Your task to perform on an android device: Set the phone to "Do not disturb". Image 0: 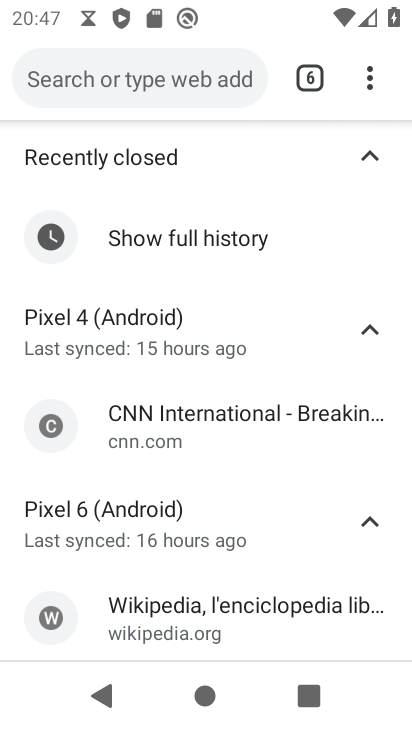
Step 0: press home button
Your task to perform on an android device: Set the phone to "Do not disturb". Image 1: 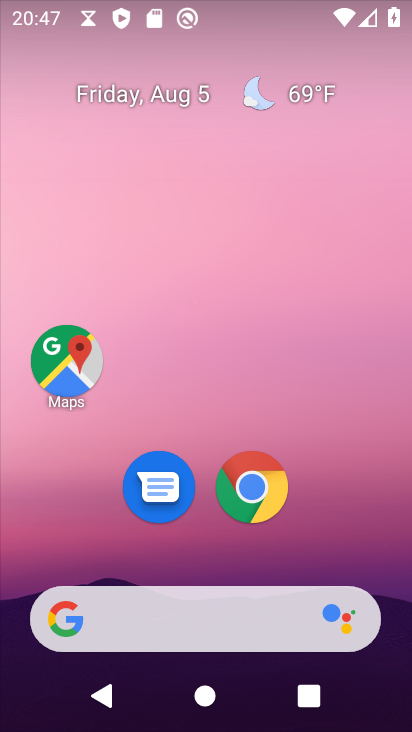
Step 1: drag from (189, 616) to (334, 147)
Your task to perform on an android device: Set the phone to "Do not disturb". Image 2: 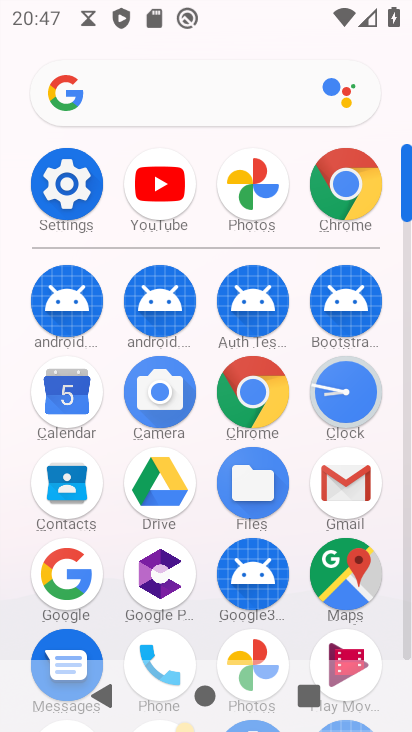
Step 2: click (67, 198)
Your task to perform on an android device: Set the phone to "Do not disturb". Image 3: 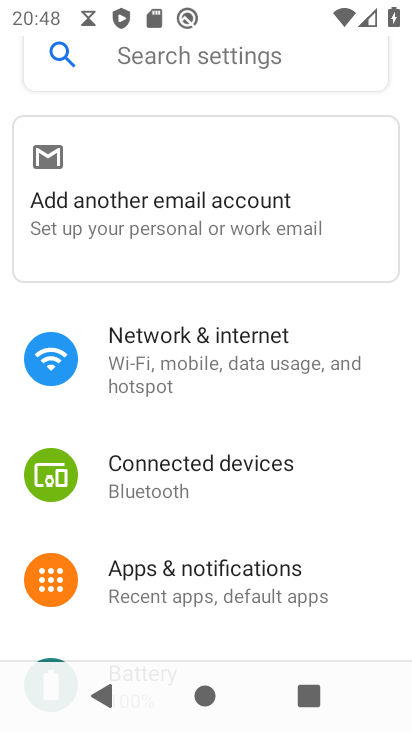
Step 3: drag from (281, 617) to (399, 157)
Your task to perform on an android device: Set the phone to "Do not disturb". Image 4: 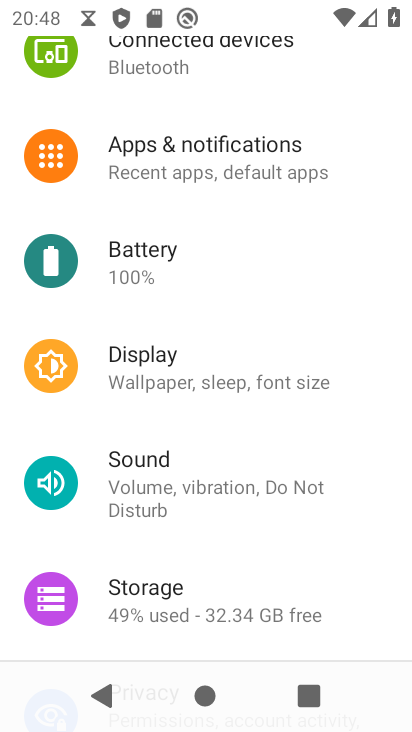
Step 4: click (161, 469)
Your task to perform on an android device: Set the phone to "Do not disturb". Image 5: 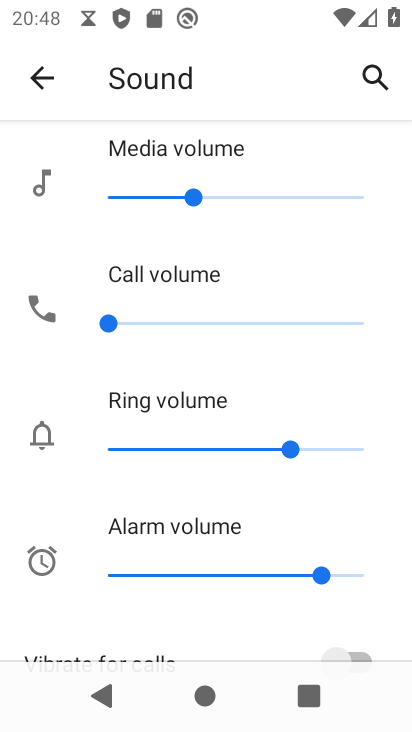
Step 5: drag from (191, 628) to (316, 172)
Your task to perform on an android device: Set the phone to "Do not disturb". Image 6: 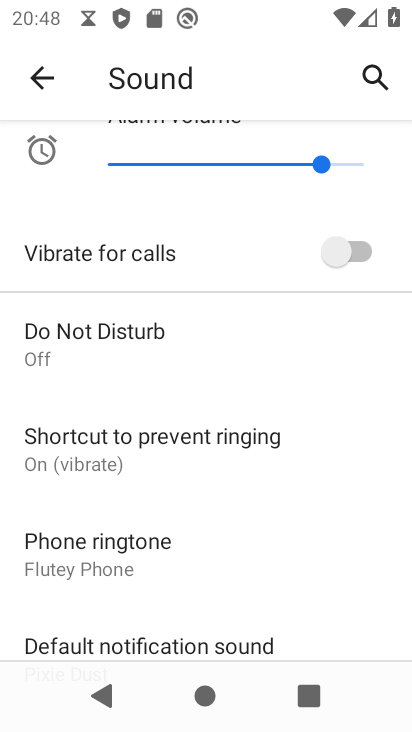
Step 6: click (74, 334)
Your task to perform on an android device: Set the phone to "Do not disturb". Image 7: 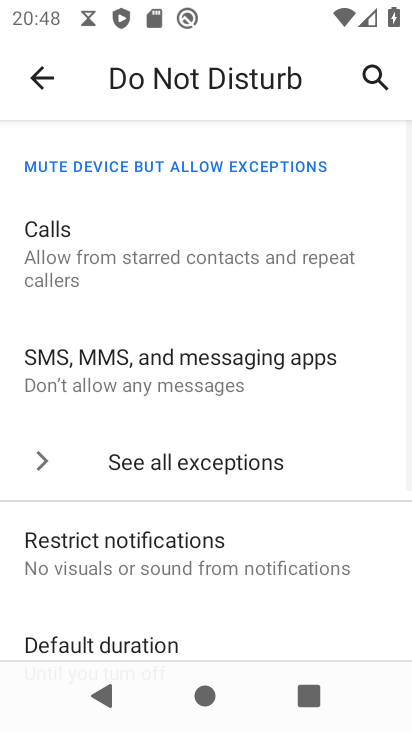
Step 7: drag from (184, 595) to (304, 113)
Your task to perform on an android device: Set the phone to "Do not disturb". Image 8: 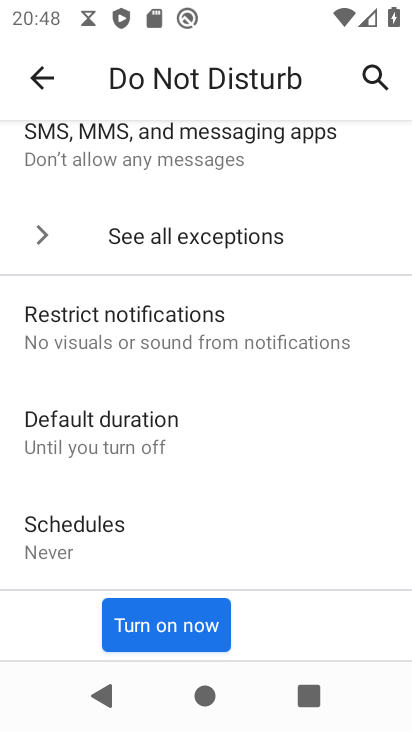
Step 8: click (183, 623)
Your task to perform on an android device: Set the phone to "Do not disturb". Image 9: 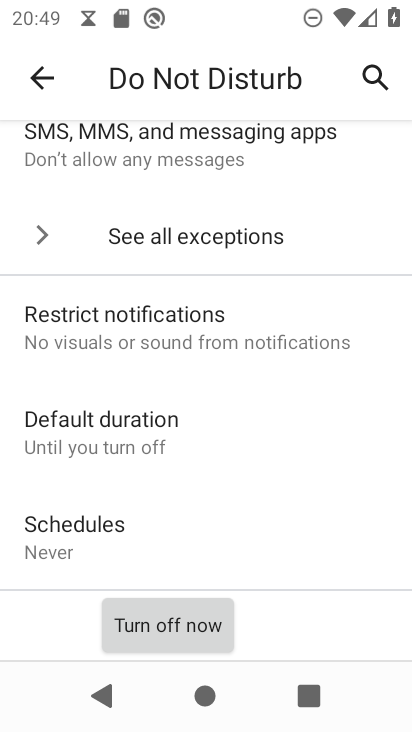
Step 9: task complete